Your task to perform on an android device: turn on wifi Image 0: 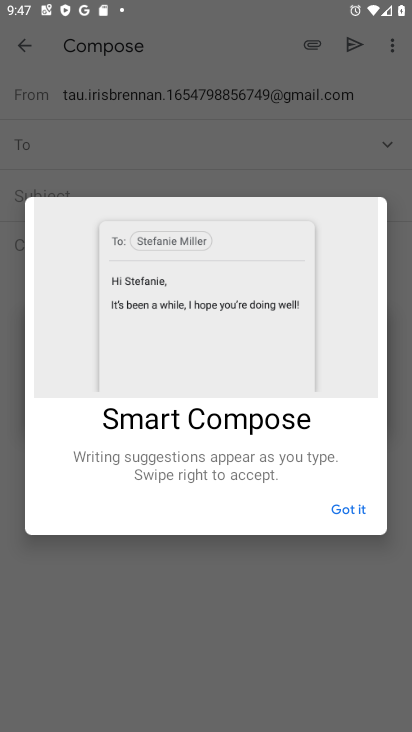
Step 0: press home button
Your task to perform on an android device: turn on wifi Image 1: 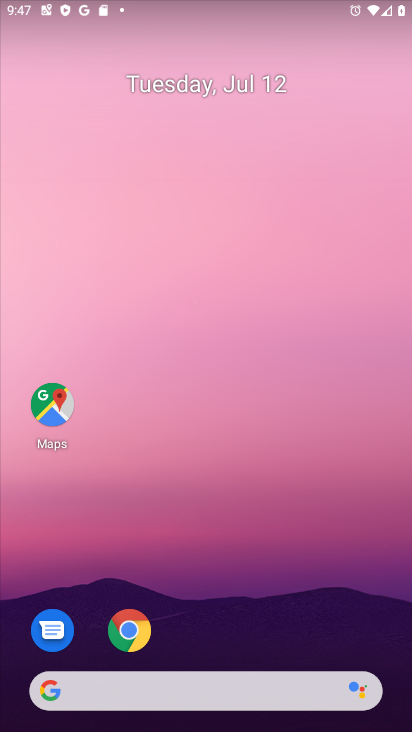
Step 1: drag from (232, 648) to (264, 122)
Your task to perform on an android device: turn on wifi Image 2: 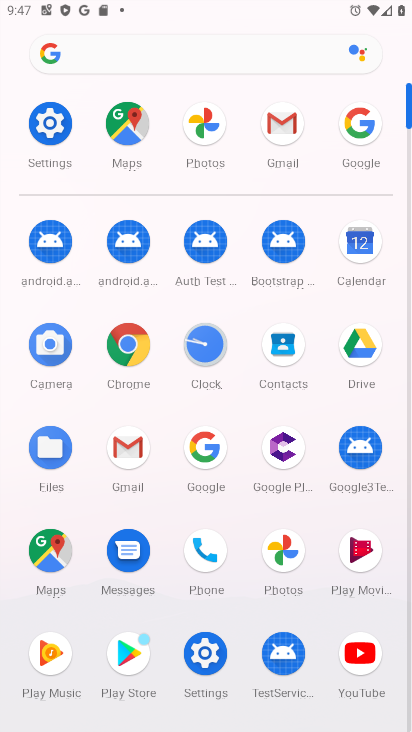
Step 2: click (53, 121)
Your task to perform on an android device: turn on wifi Image 3: 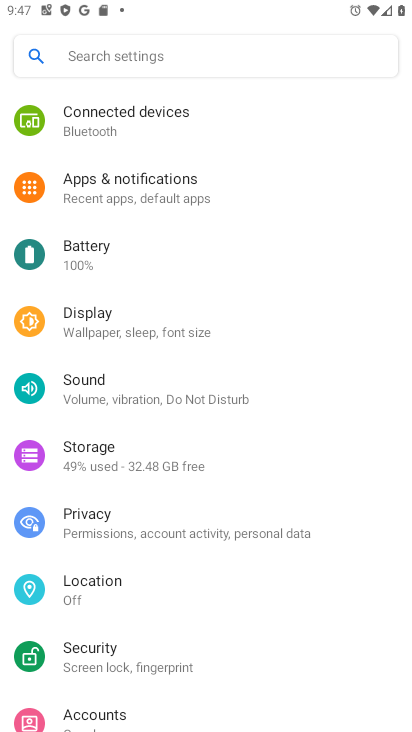
Step 3: drag from (132, 171) to (196, 561)
Your task to perform on an android device: turn on wifi Image 4: 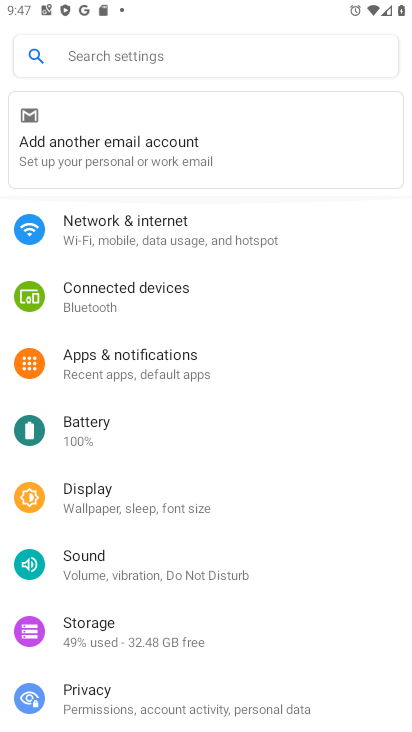
Step 4: click (144, 220)
Your task to perform on an android device: turn on wifi Image 5: 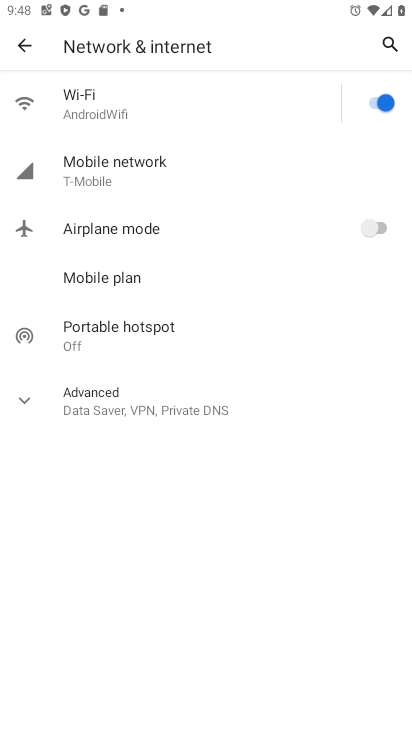
Step 5: task complete